Your task to perform on an android device: turn off data saver in the chrome app Image 0: 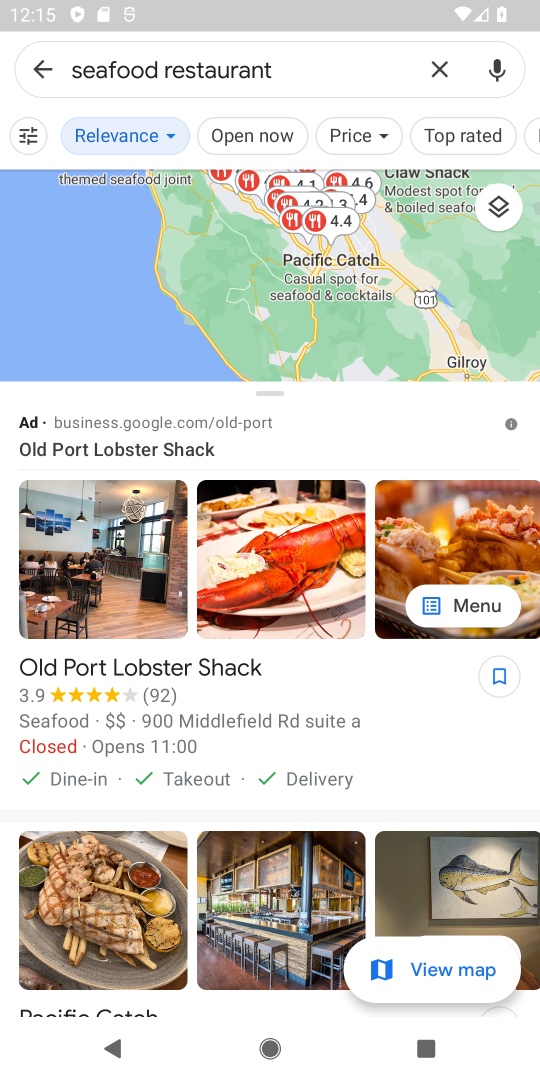
Step 0: press home button
Your task to perform on an android device: turn off data saver in the chrome app Image 1: 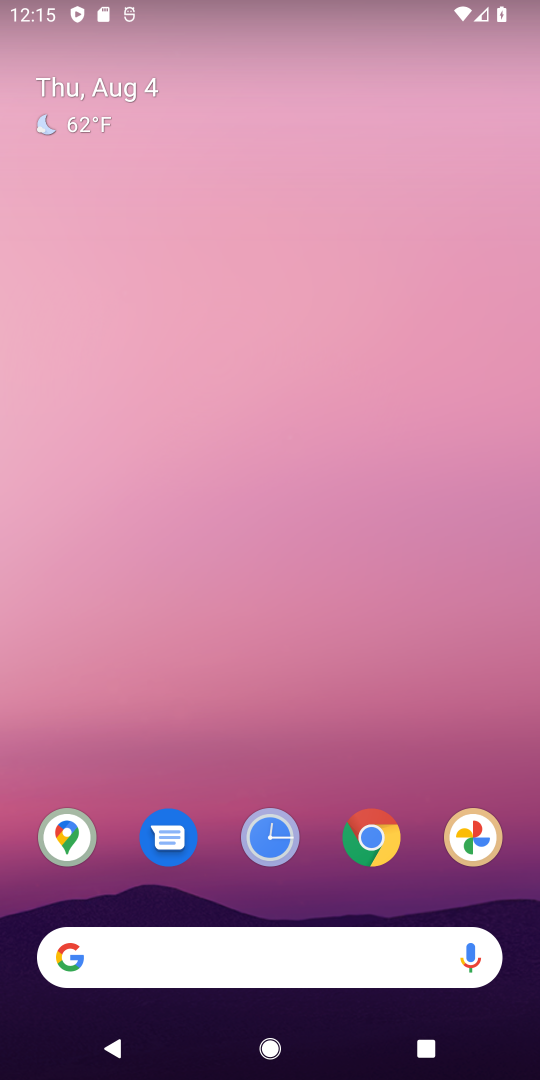
Step 1: click (376, 822)
Your task to perform on an android device: turn off data saver in the chrome app Image 2: 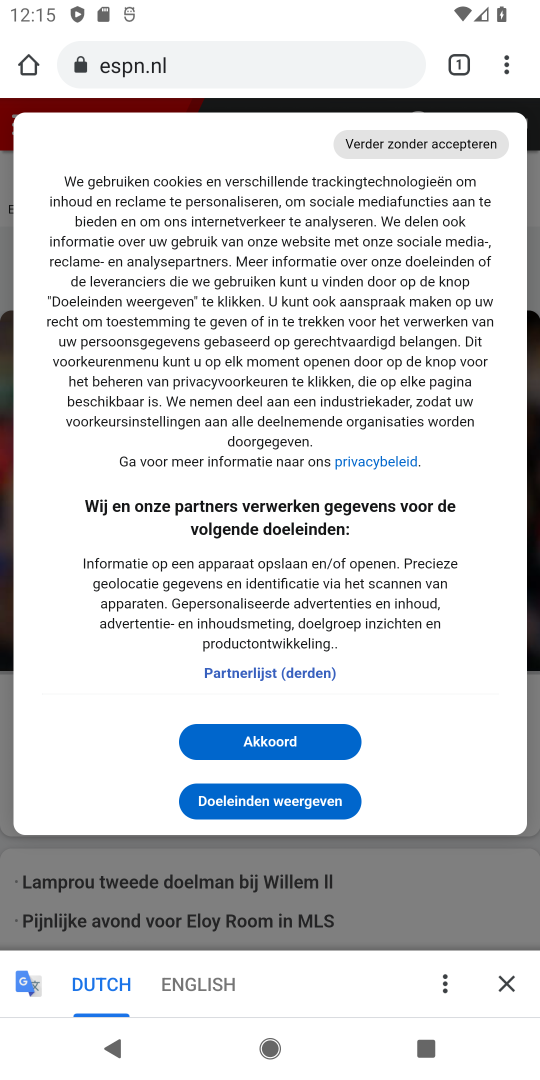
Step 2: click (508, 57)
Your task to perform on an android device: turn off data saver in the chrome app Image 3: 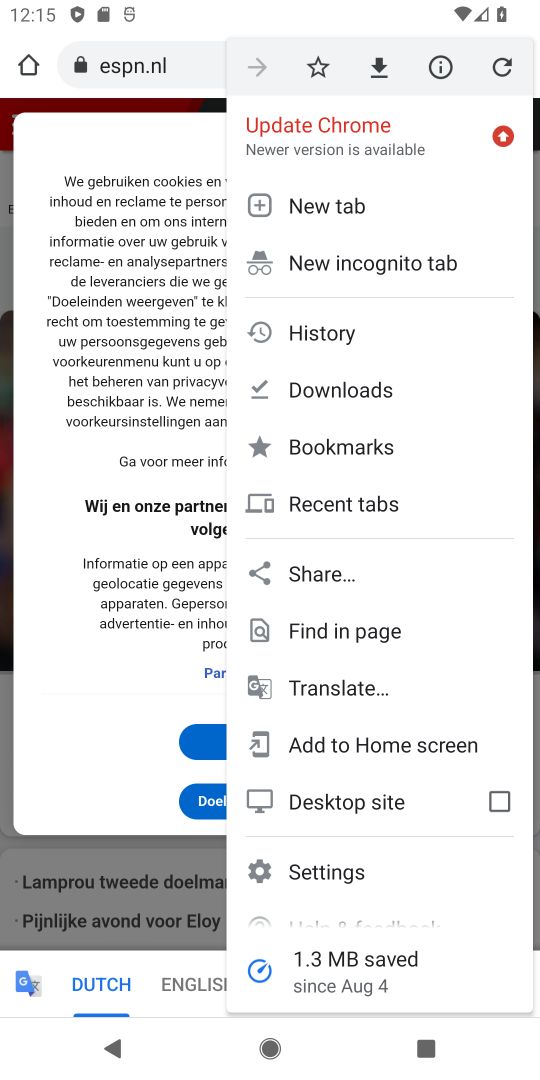
Step 3: click (296, 880)
Your task to perform on an android device: turn off data saver in the chrome app Image 4: 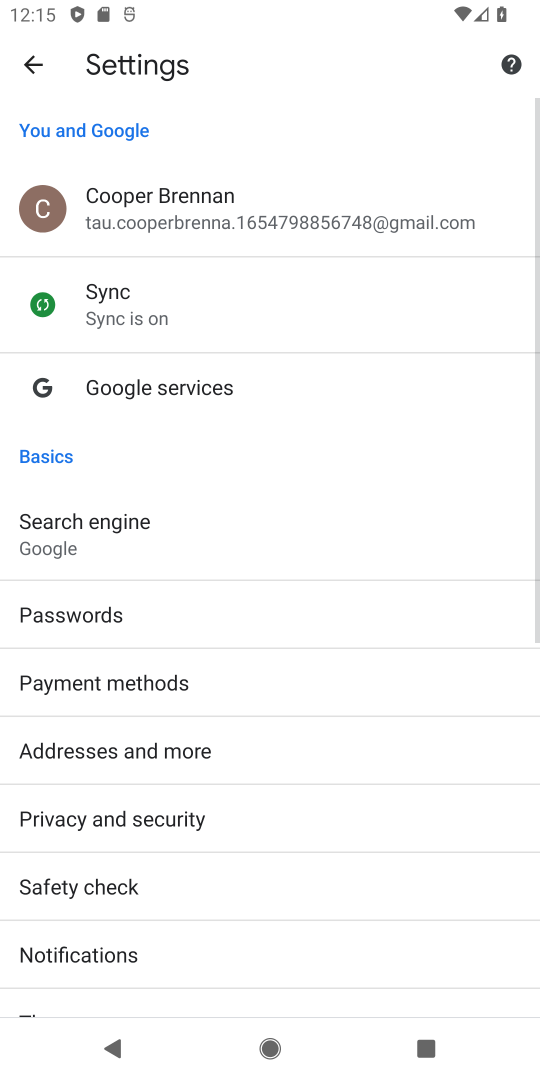
Step 4: drag from (221, 858) to (278, 461)
Your task to perform on an android device: turn off data saver in the chrome app Image 5: 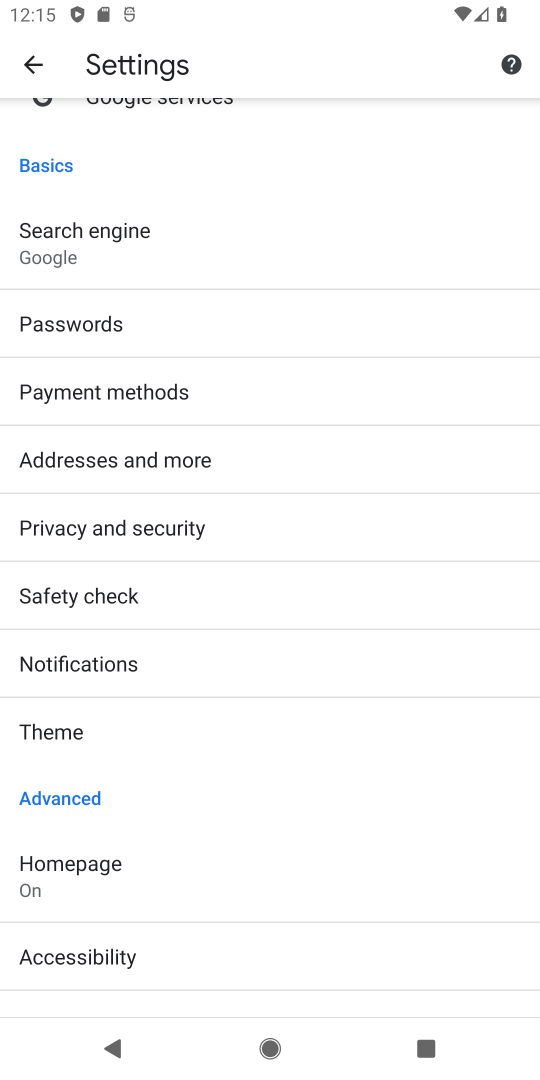
Step 5: drag from (211, 871) to (216, 138)
Your task to perform on an android device: turn off data saver in the chrome app Image 6: 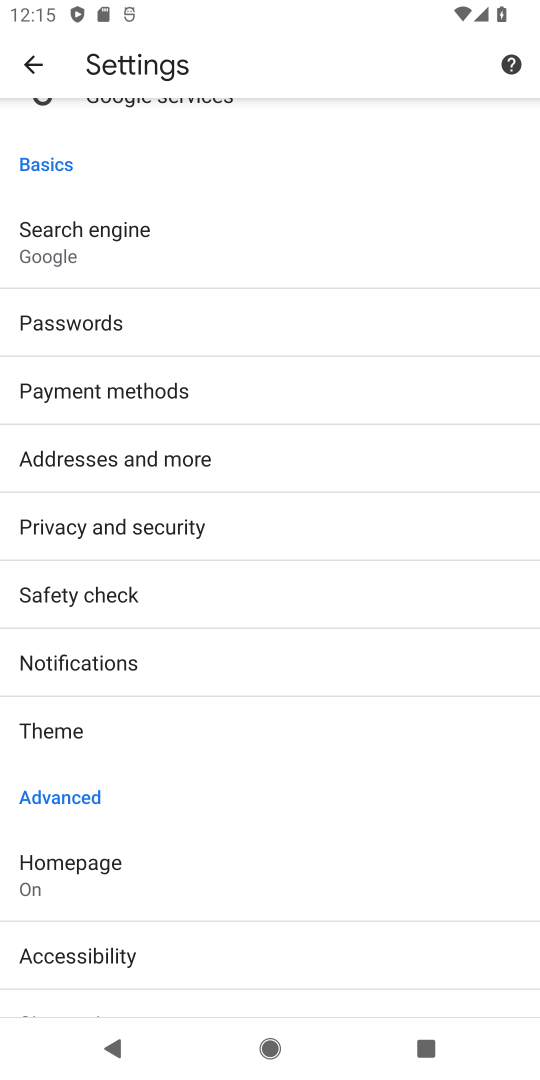
Step 6: drag from (205, 746) to (220, 20)
Your task to perform on an android device: turn off data saver in the chrome app Image 7: 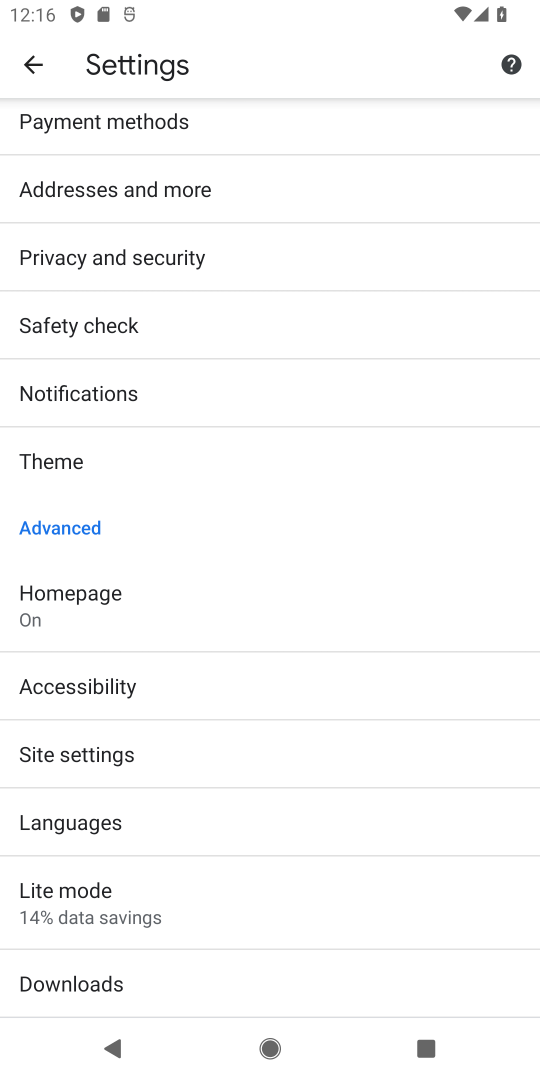
Step 7: click (148, 918)
Your task to perform on an android device: turn off data saver in the chrome app Image 8: 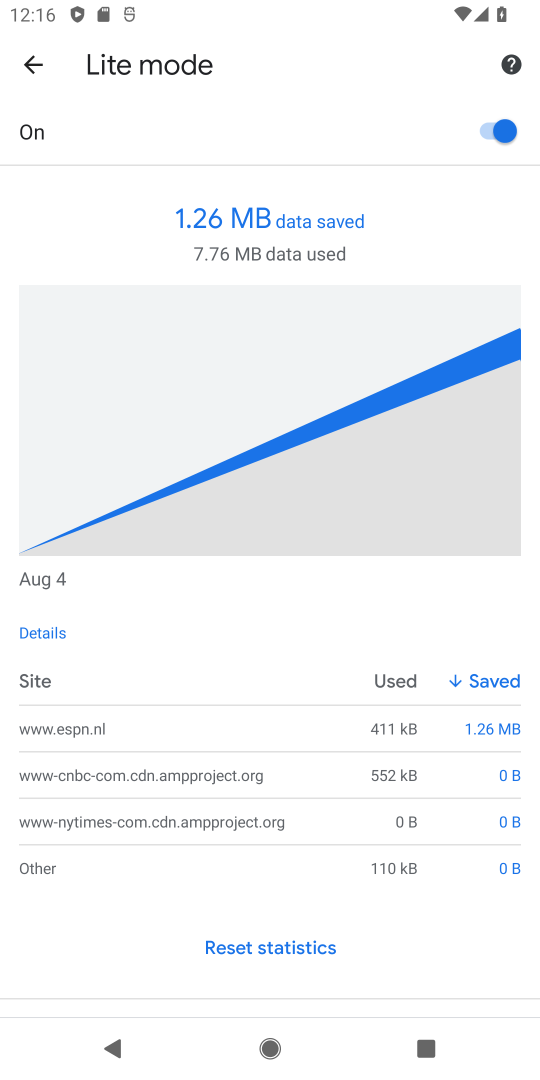
Step 8: click (510, 128)
Your task to perform on an android device: turn off data saver in the chrome app Image 9: 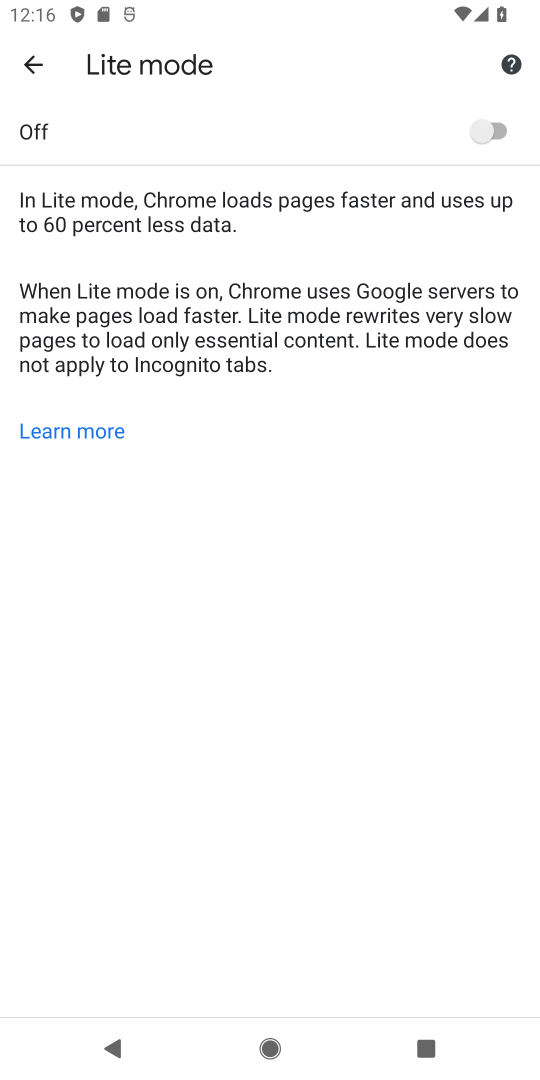
Step 9: task complete